Your task to perform on an android device: Clear all items from cart on costco. Add usb-c to usb-b to the cart on costco, then select checkout. Image 0: 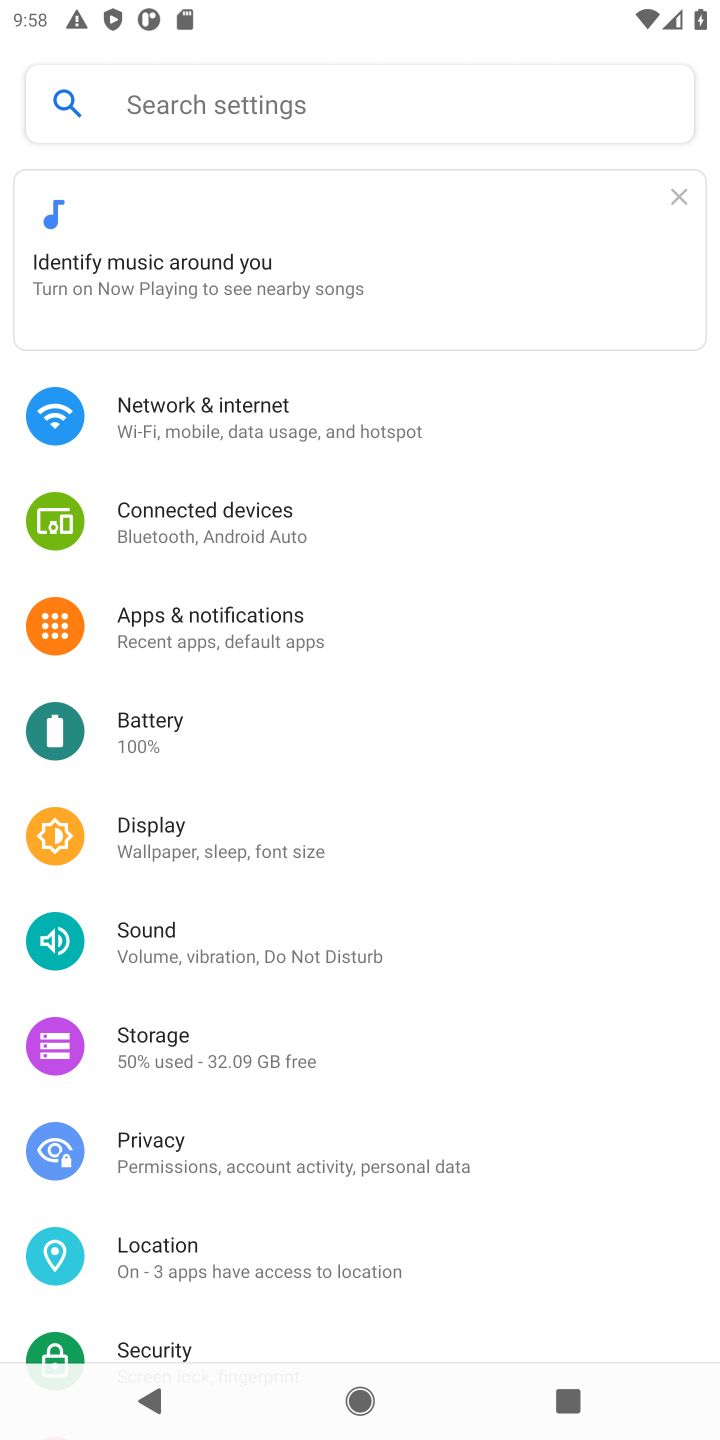
Step 0: press home button
Your task to perform on an android device: Clear all items from cart on costco. Add usb-c to usb-b to the cart on costco, then select checkout. Image 1: 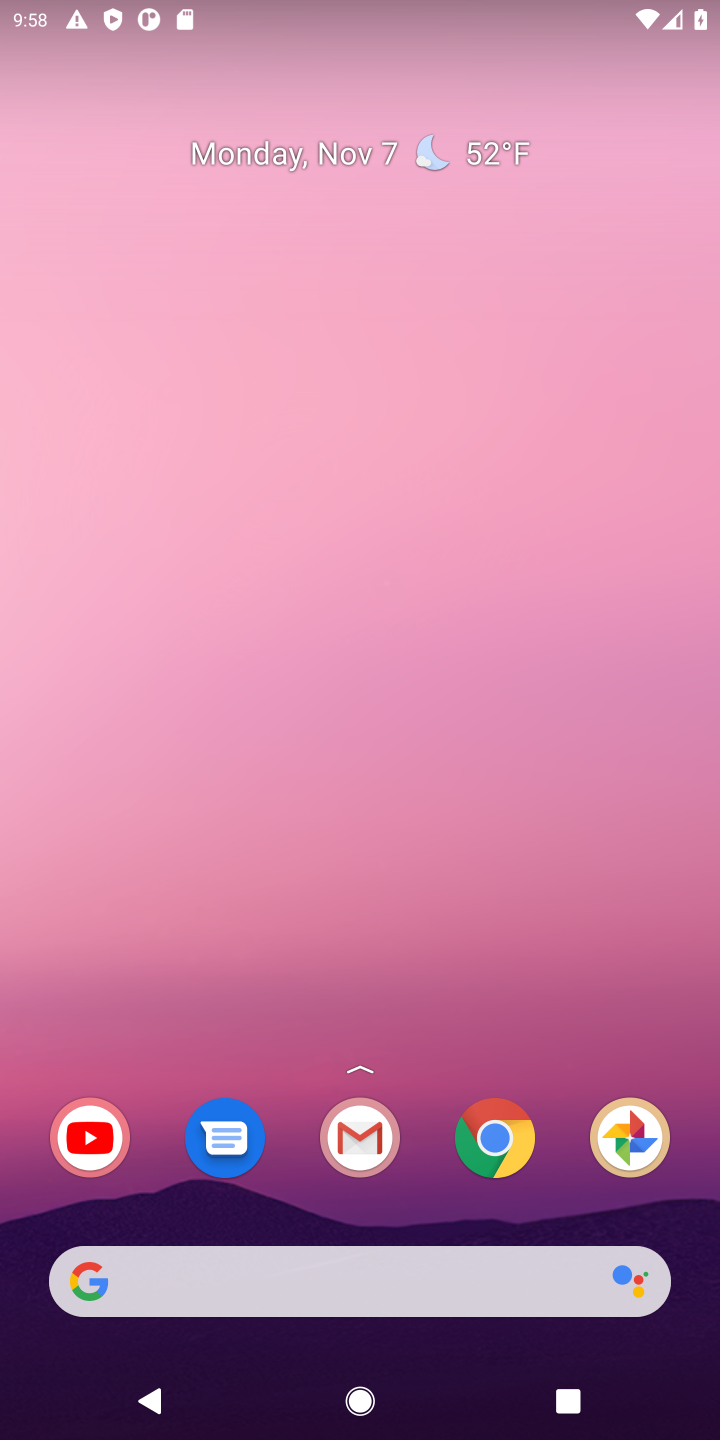
Step 1: click (492, 1129)
Your task to perform on an android device: Clear all items from cart on costco. Add usb-c to usb-b to the cart on costco, then select checkout. Image 2: 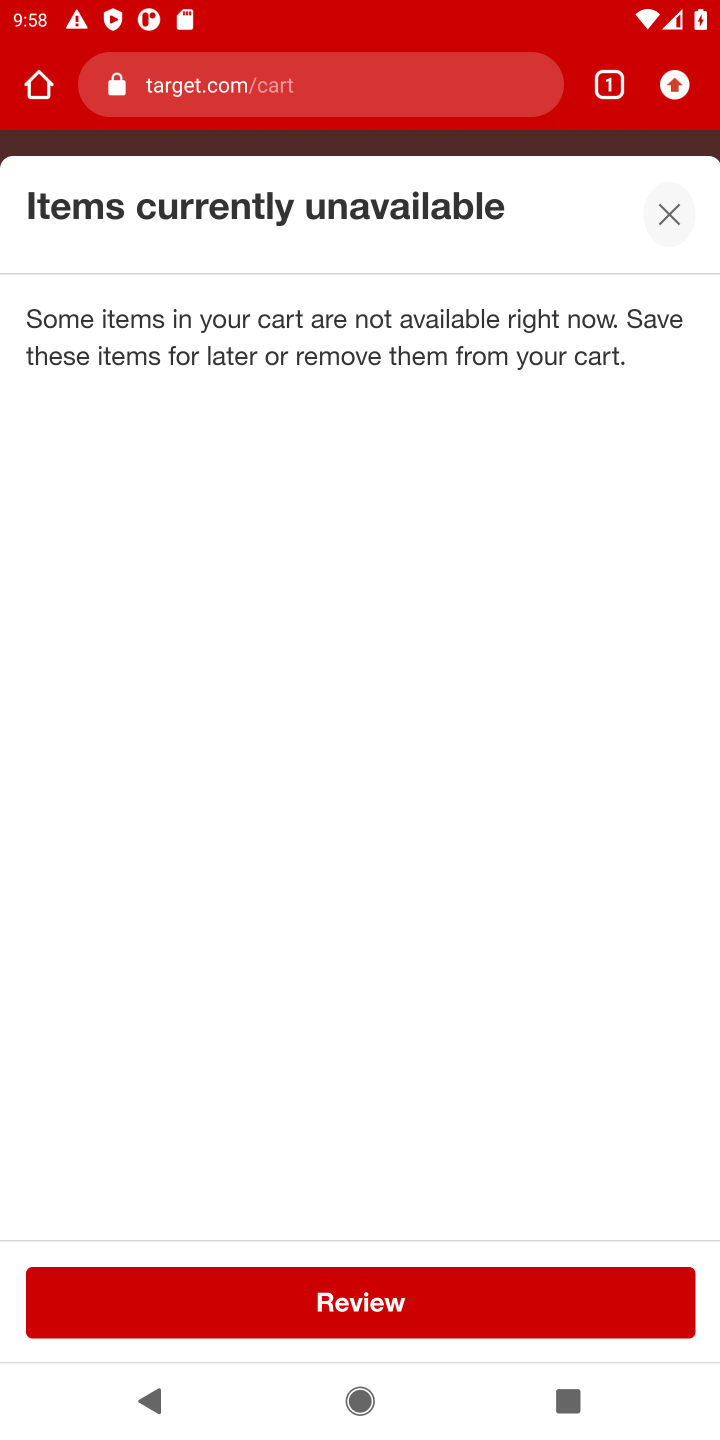
Step 2: click (233, 79)
Your task to perform on an android device: Clear all items from cart on costco. Add usb-c to usb-b to the cart on costco, then select checkout. Image 3: 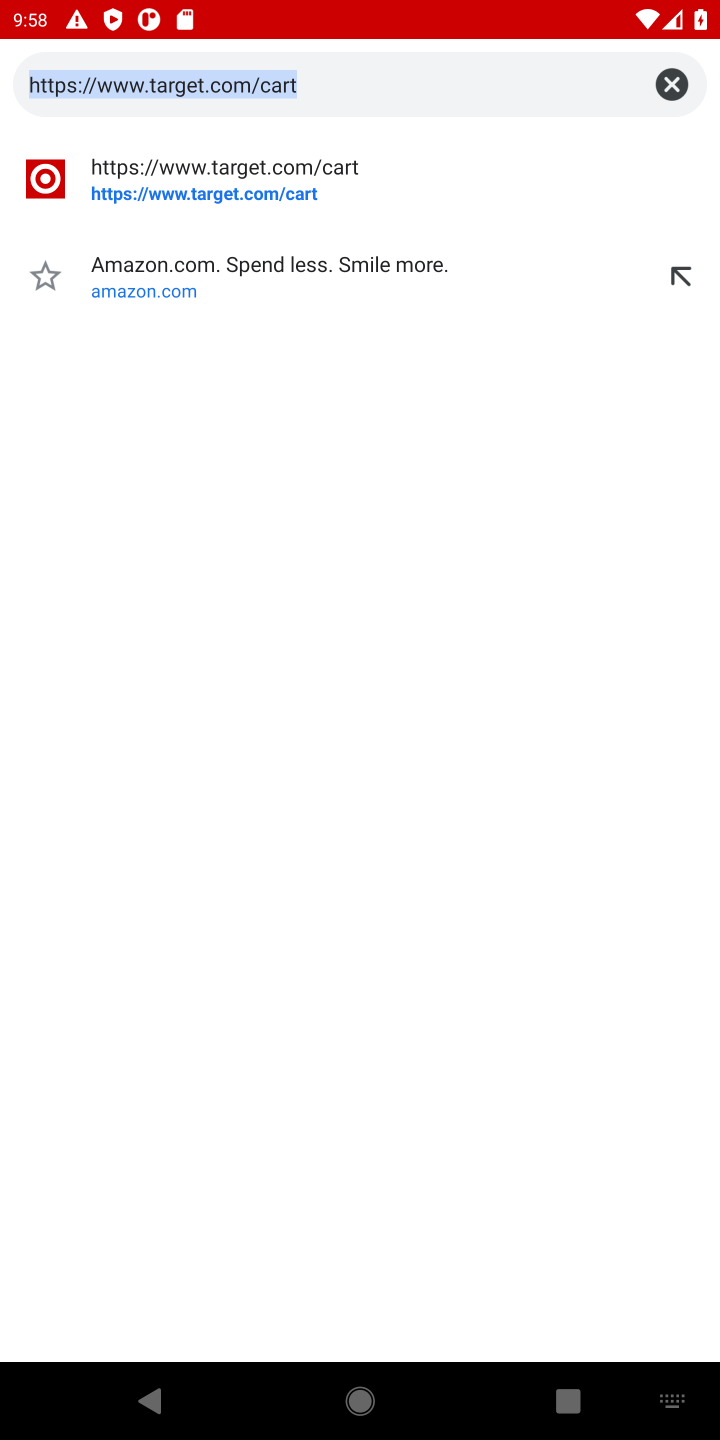
Step 3: click (673, 78)
Your task to perform on an android device: Clear all items from cart on costco. Add usb-c to usb-b to the cart on costco, then select checkout. Image 4: 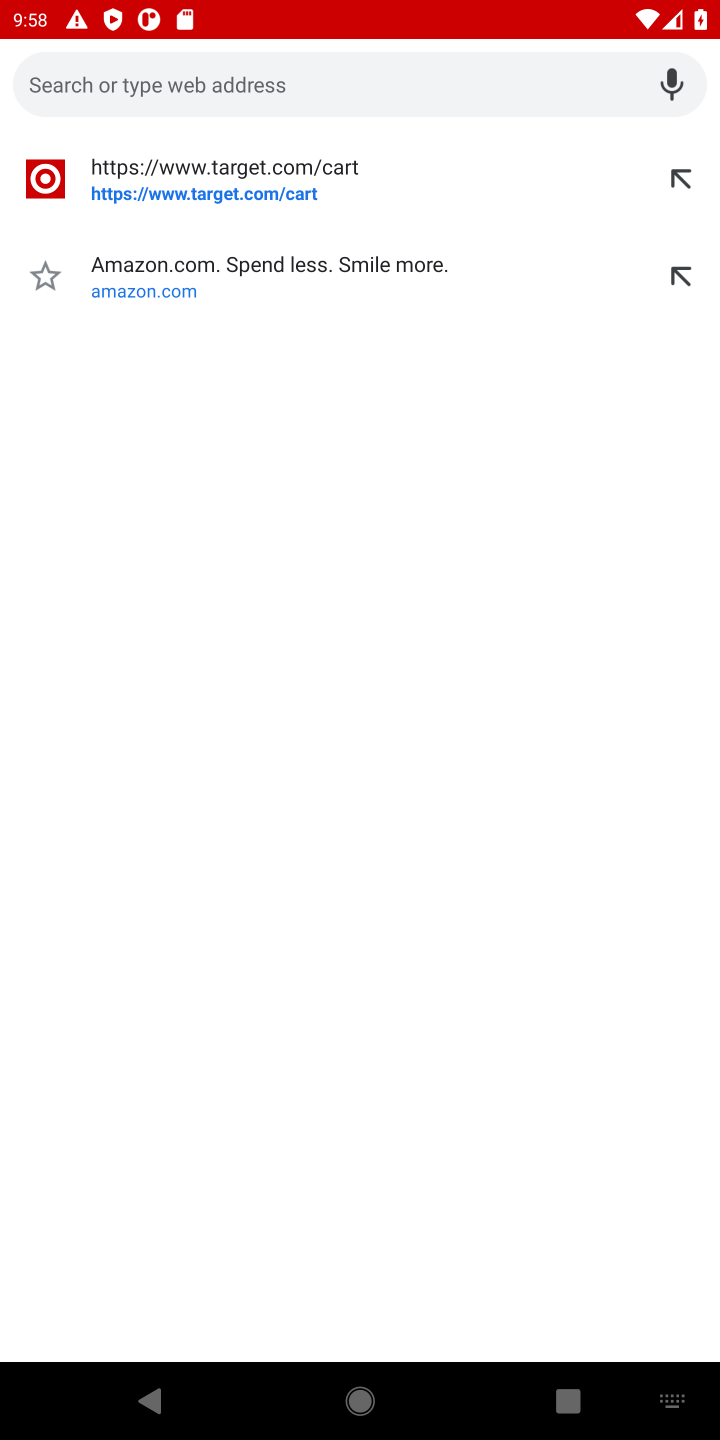
Step 4: type "costco"
Your task to perform on an android device: Clear all items from cart on costco. Add usb-c to usb-b to the cart on costco, then select checkout. Image 5: 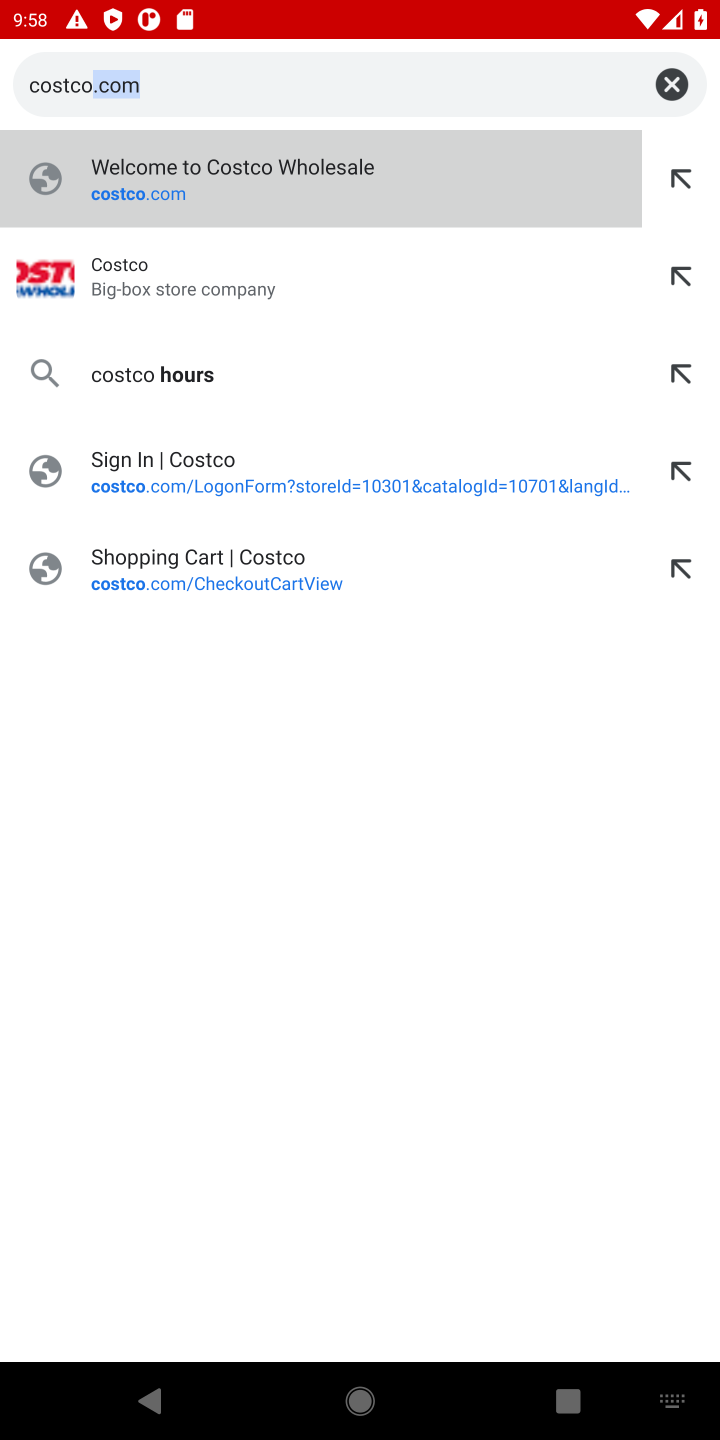
Step 5: type ""
Your task to perform on an android device: Clear all items from cart on costco. Add usb-c to usb-b to the cart on costco, then select checkout. Image 6: 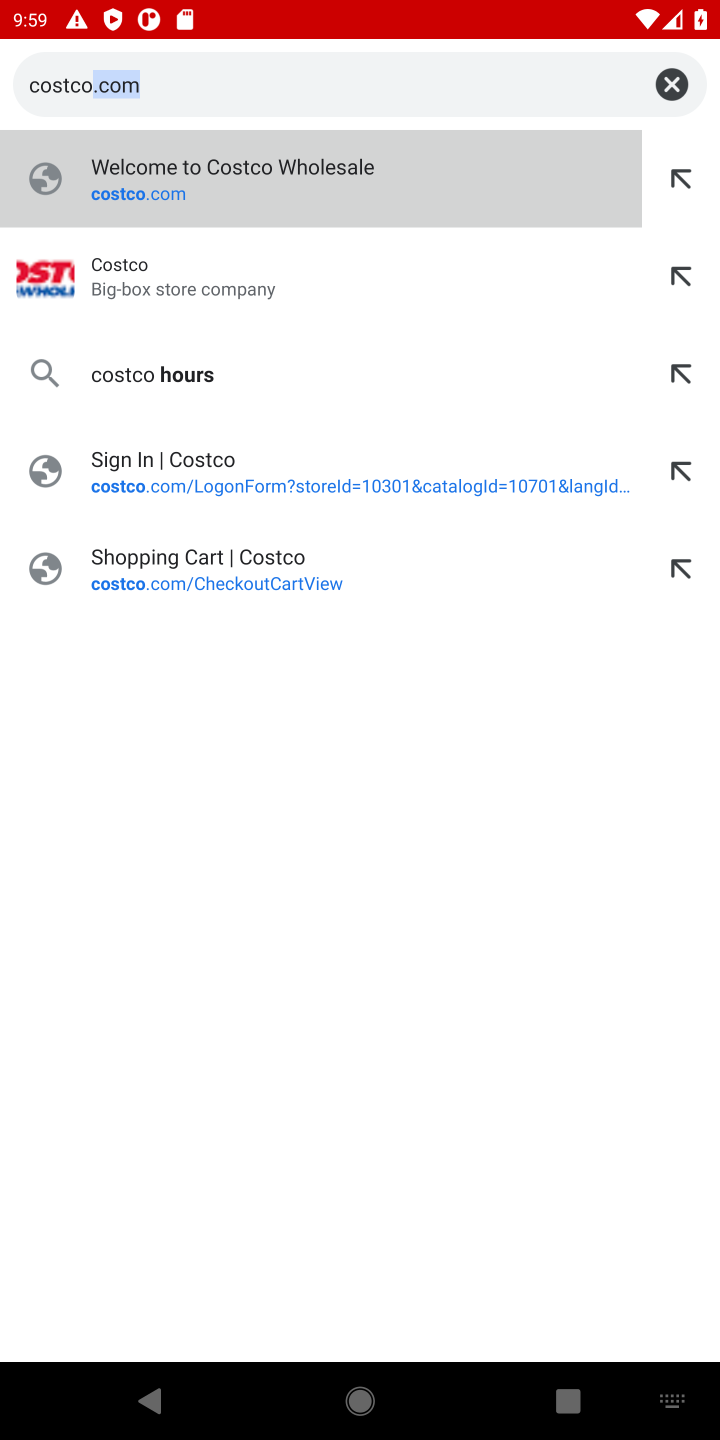
Step 6: click (114, 262)
Your task to perform on an android device: Clear all items from cart on costco. Add usb-c to usb-b to the cart on costco, then select checkout. Image 7: 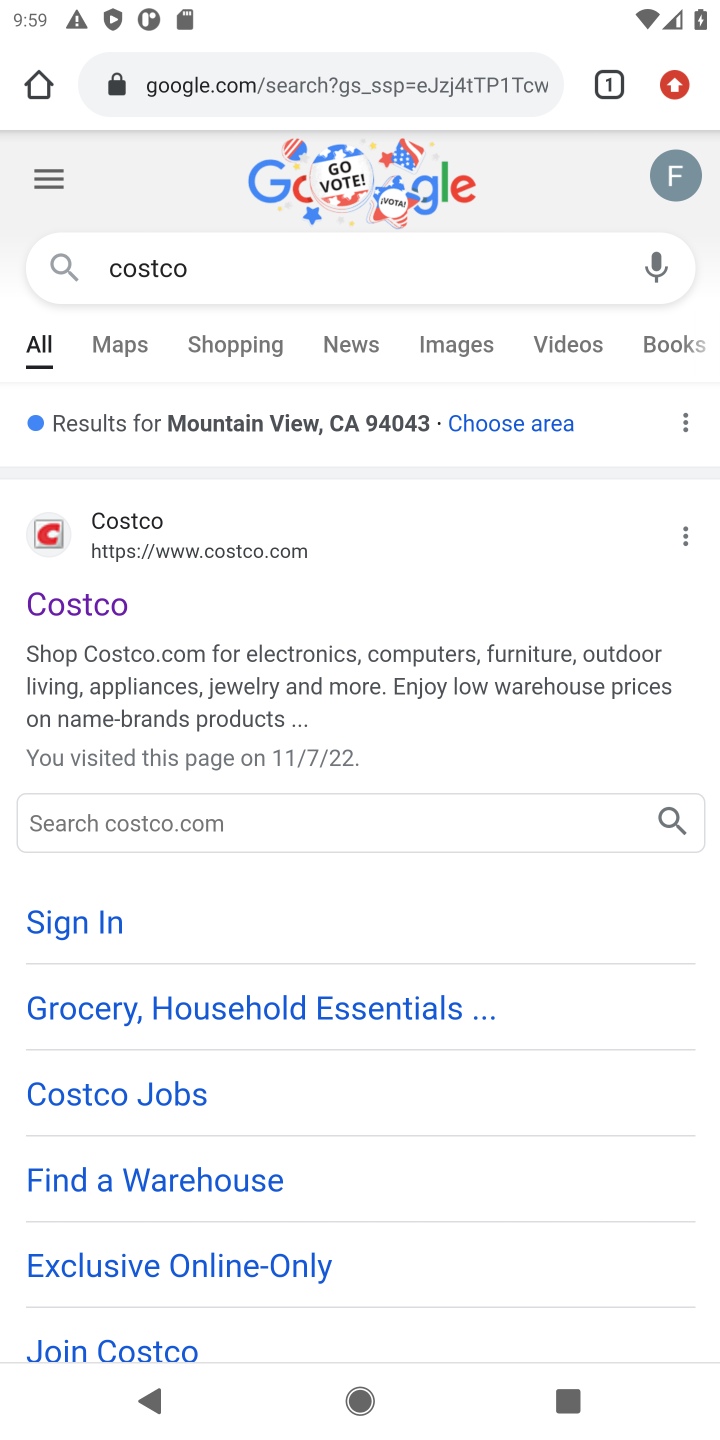
Step 7: click (95, 595)
Your task to perform on an android device: Clear all items from cart on costco. Add usb-c to usb-b to the cart on costco, then select checkout. Image 8: 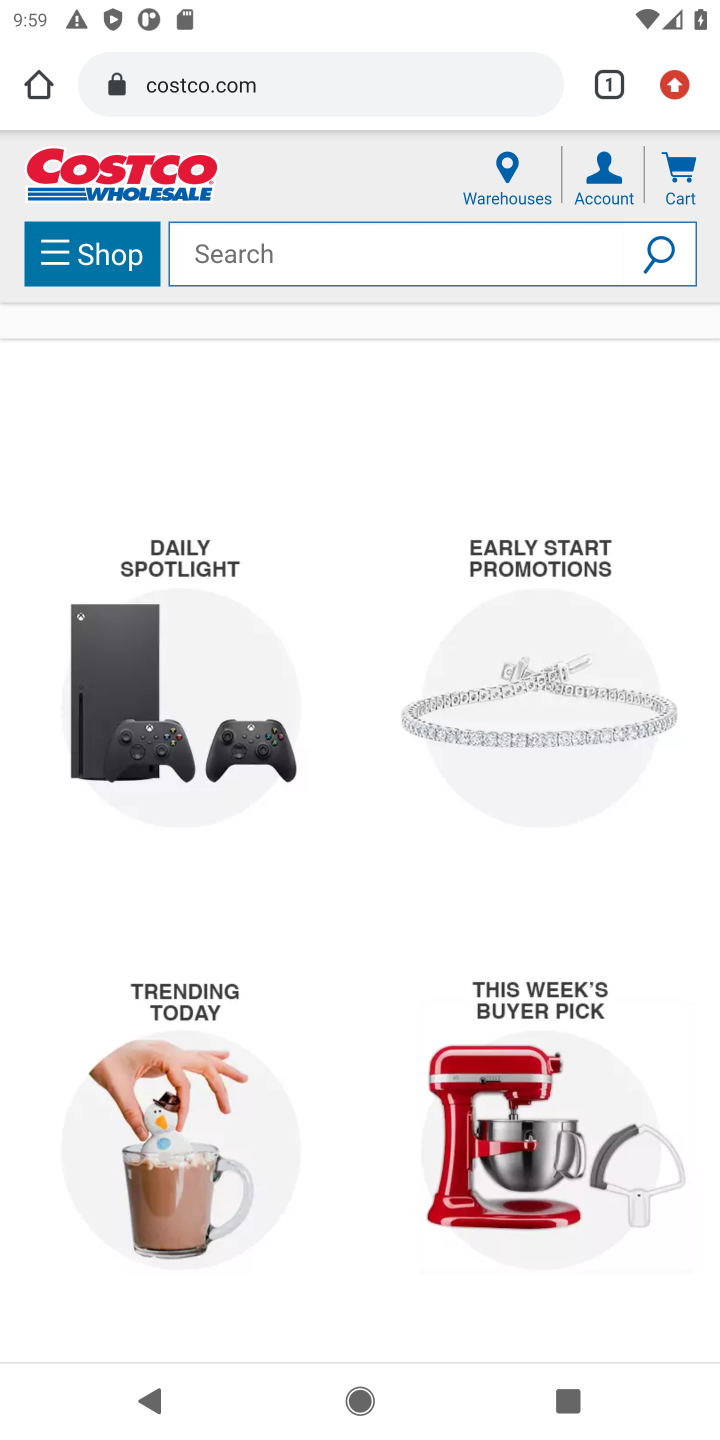
Step 8: click (259, 256)
Your task to perform on an android device: Clear all items from cart on costco. Add usb-c to usb-b to the cart on costco, then select checkout. Image 9: 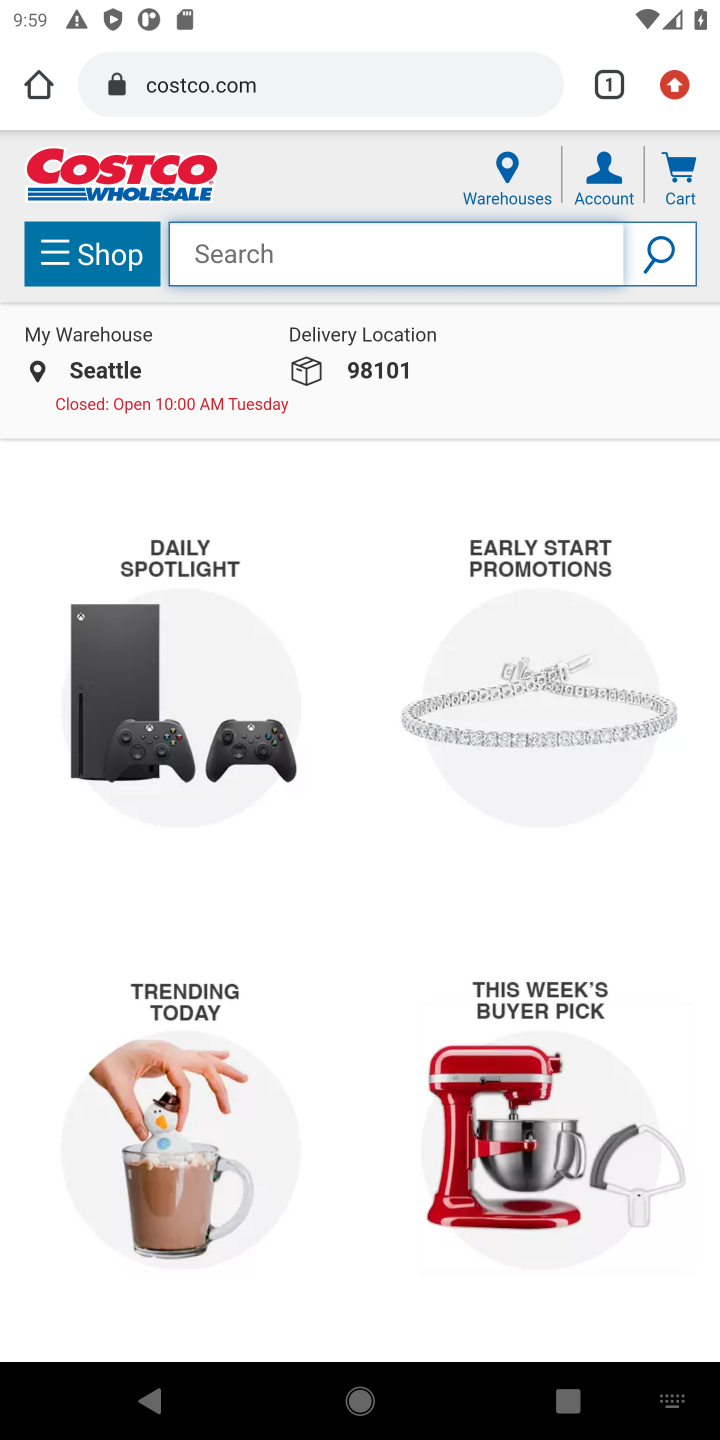
Step 9: type "usb c to usb b "
Your task to perform on an android device: Clear all items from cart on costco. Add usb-c to usb-b to the cart on costco, then select checkout. Image 10: 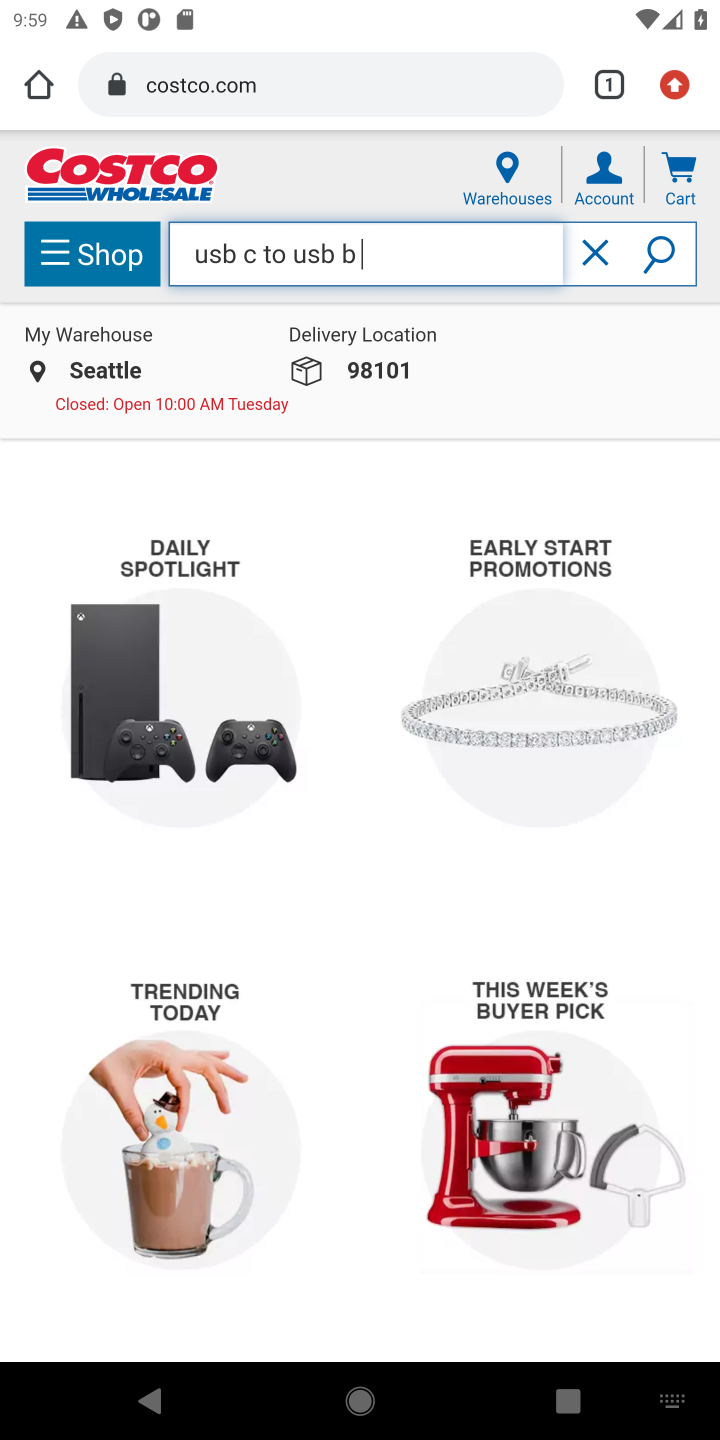
Step 10: type ""
Your task to perform on an android device: Clear all items from cart on costco. Add usb-c to usb-b to the cart on costco, then select checkout. Image 11: 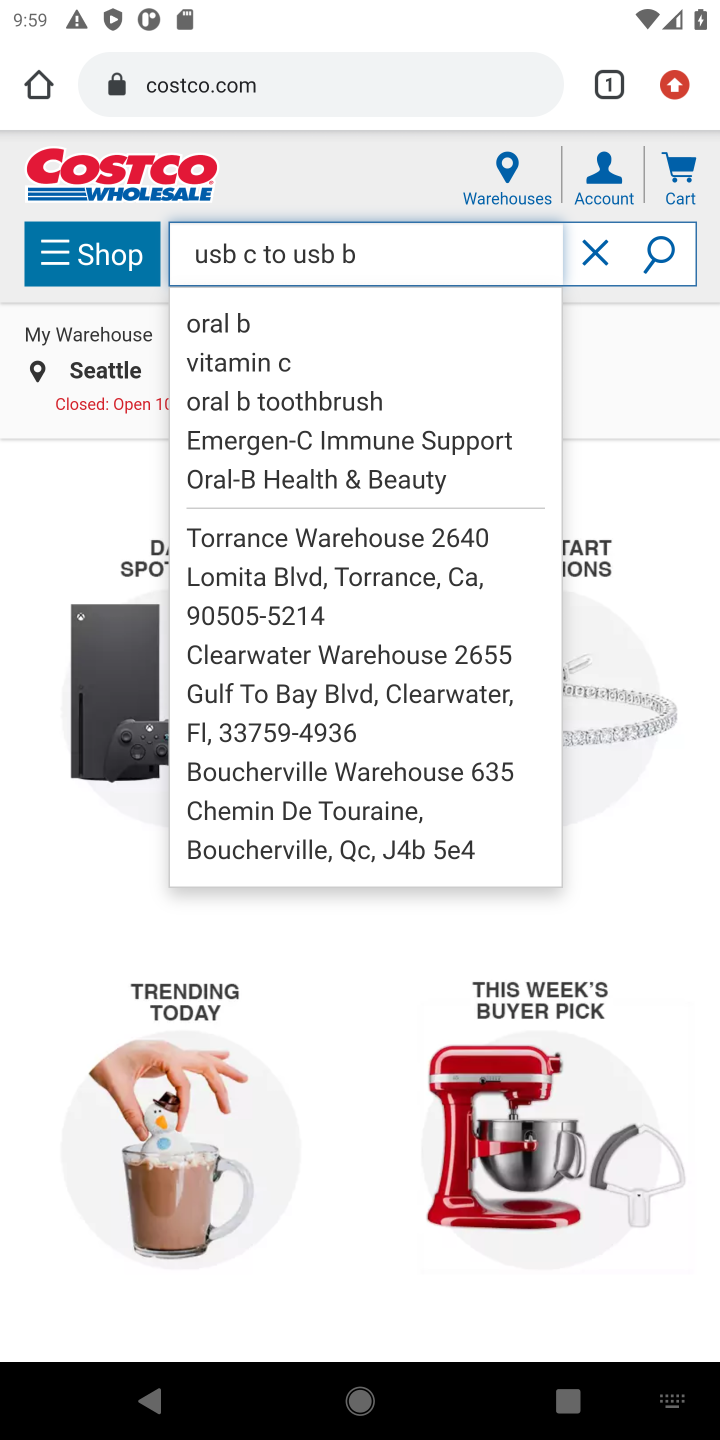
Step 11: click (245, 359)
Your task to perform on an android device: Clear all items from cart on costco. Add usb-c to usb-b to the cart on costco, then select checkout. Image 12: 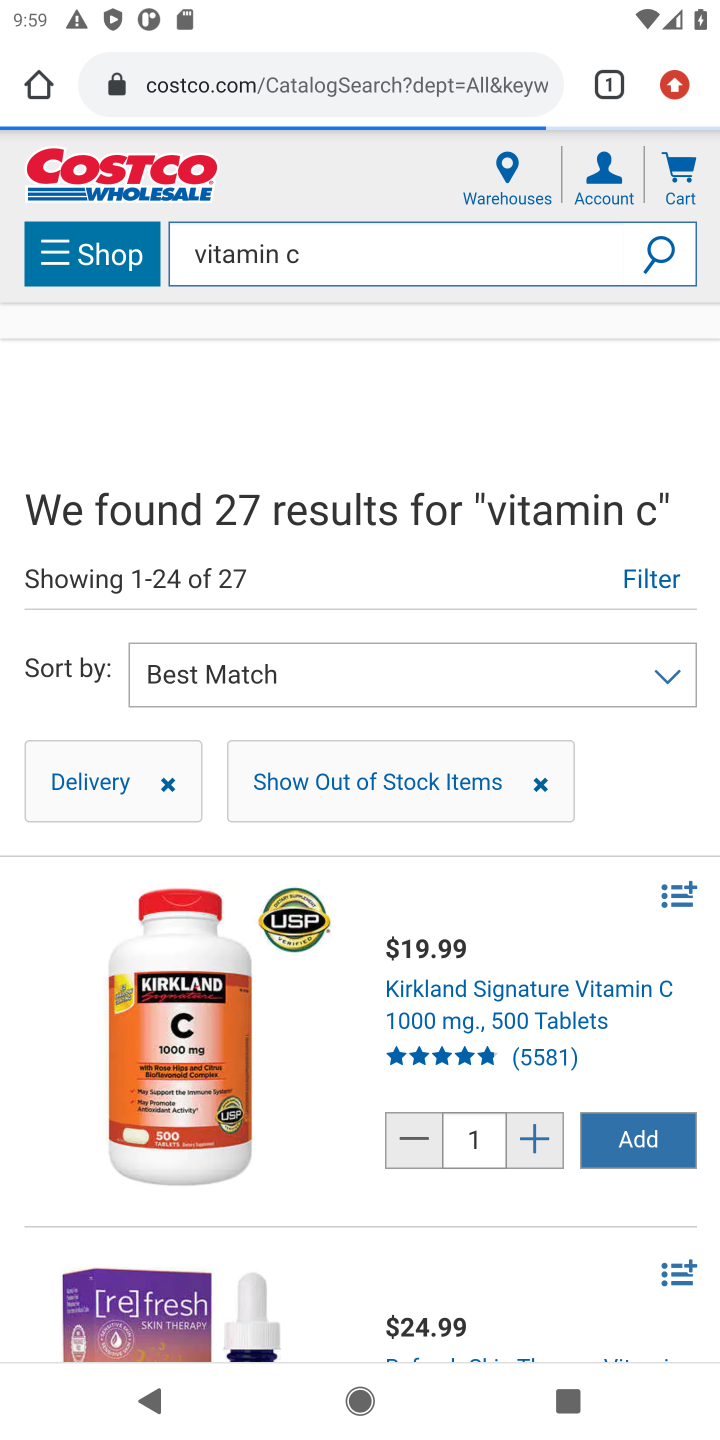
Step 12: drag from (359, 982) to (413, 482)
Your task to perform on an android device: Clear all items from cart on costco. Add usb-c to usb-b to the cart on costco, then select checkout. Image 13: 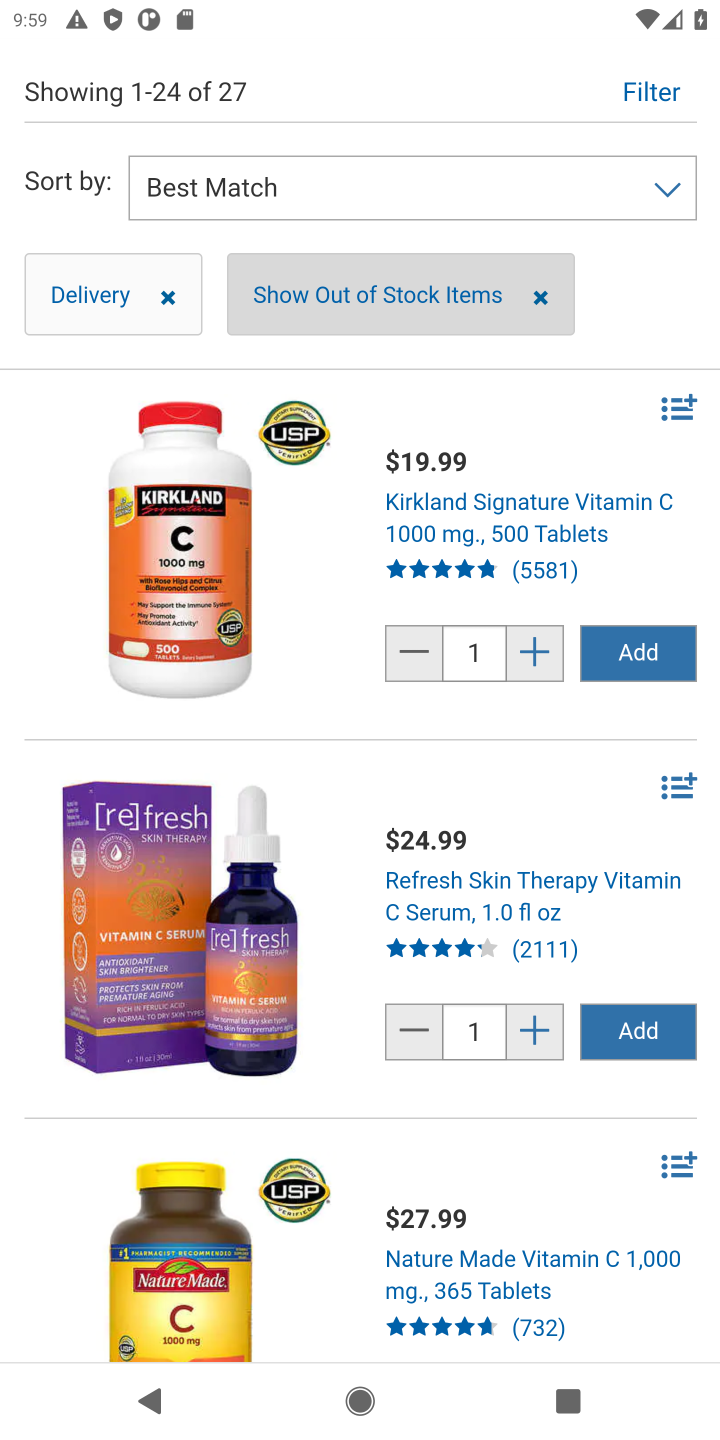
Step 13: drag from (356, 423) to (302, 1428)
Your task to perform on an android device: Clear all items from cart on costco. Add usb-c to usb-b to the cart on costco, then select checkout. Image 14: 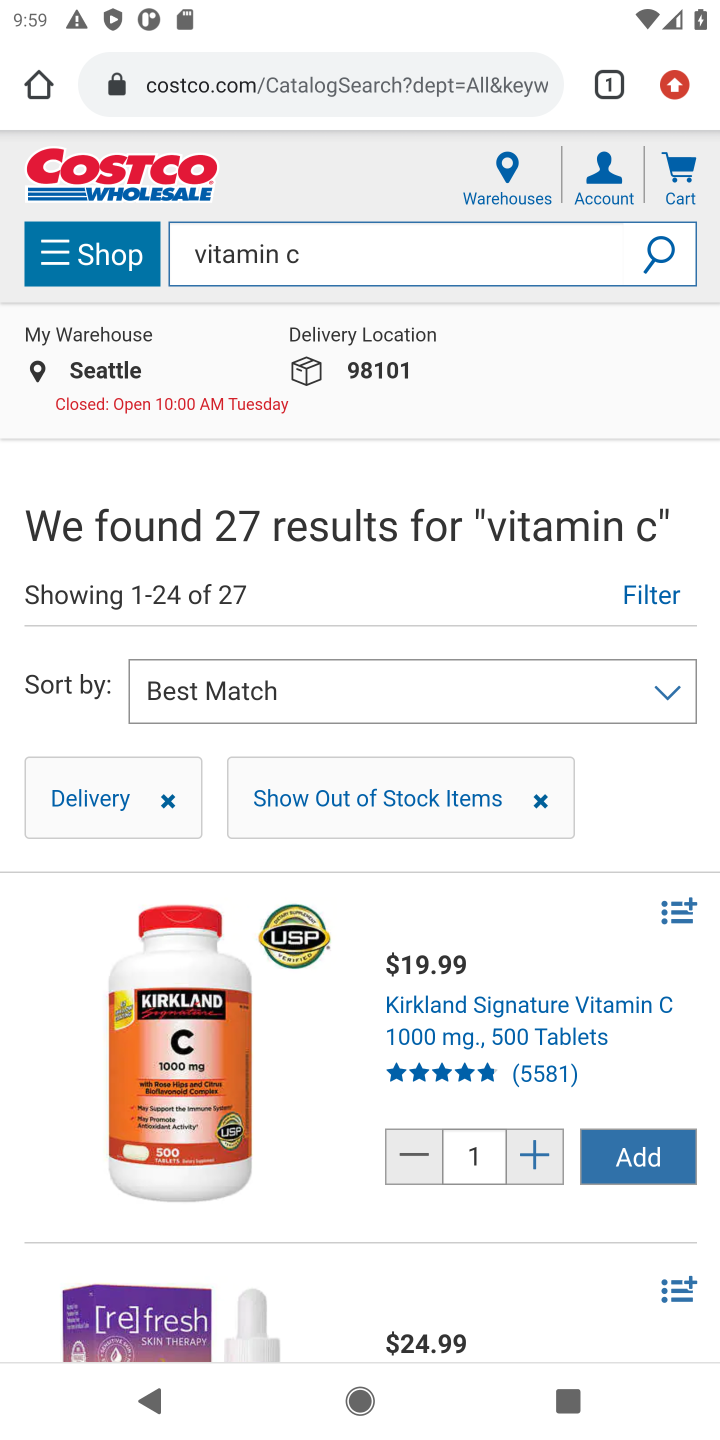
Step 14: click (232, 242)
Your task to perform on an android device: Clear all items from cart on costco. Add usb-c to usb-b to the cart on costco, then select checkout. Image 15: 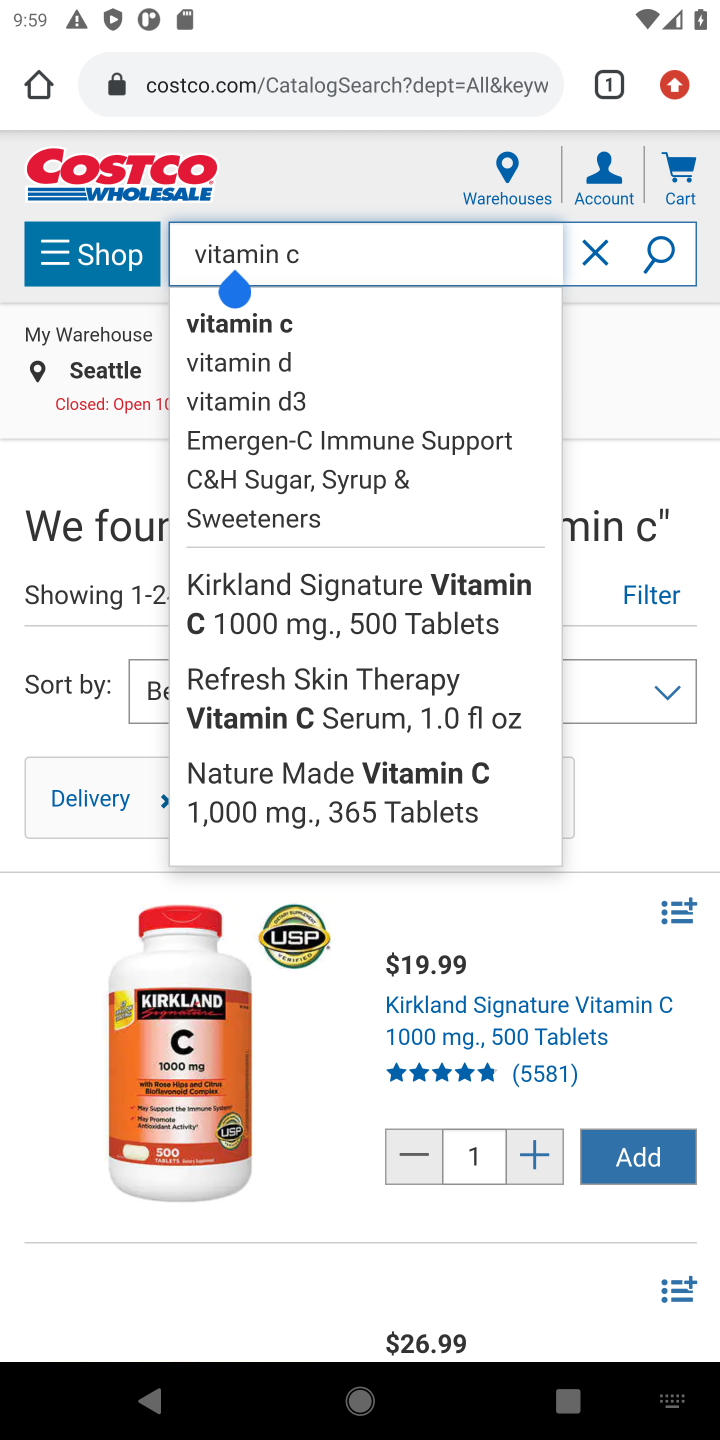
Step 15: click (591, 253)
Your task to perform on an android device: Clear all items from cart on costco. Add usb-c to usb-b to the cart on costco, then select checkout. Image 16: 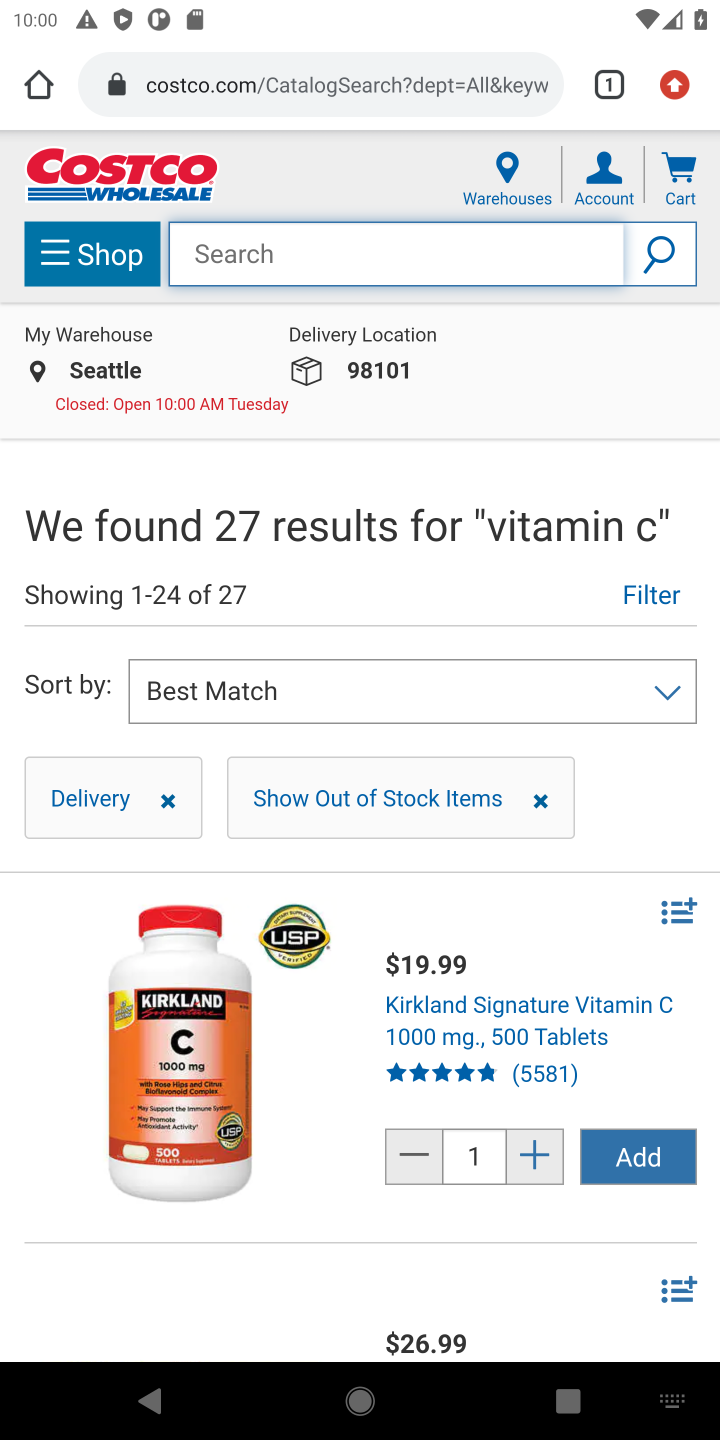
Step 16: type "usb c usb b "
Your task to perform on an android device: Clear all items from cart on costco. Add usb-c to usb-b to the cart on costco, then select checkout. Image 17: 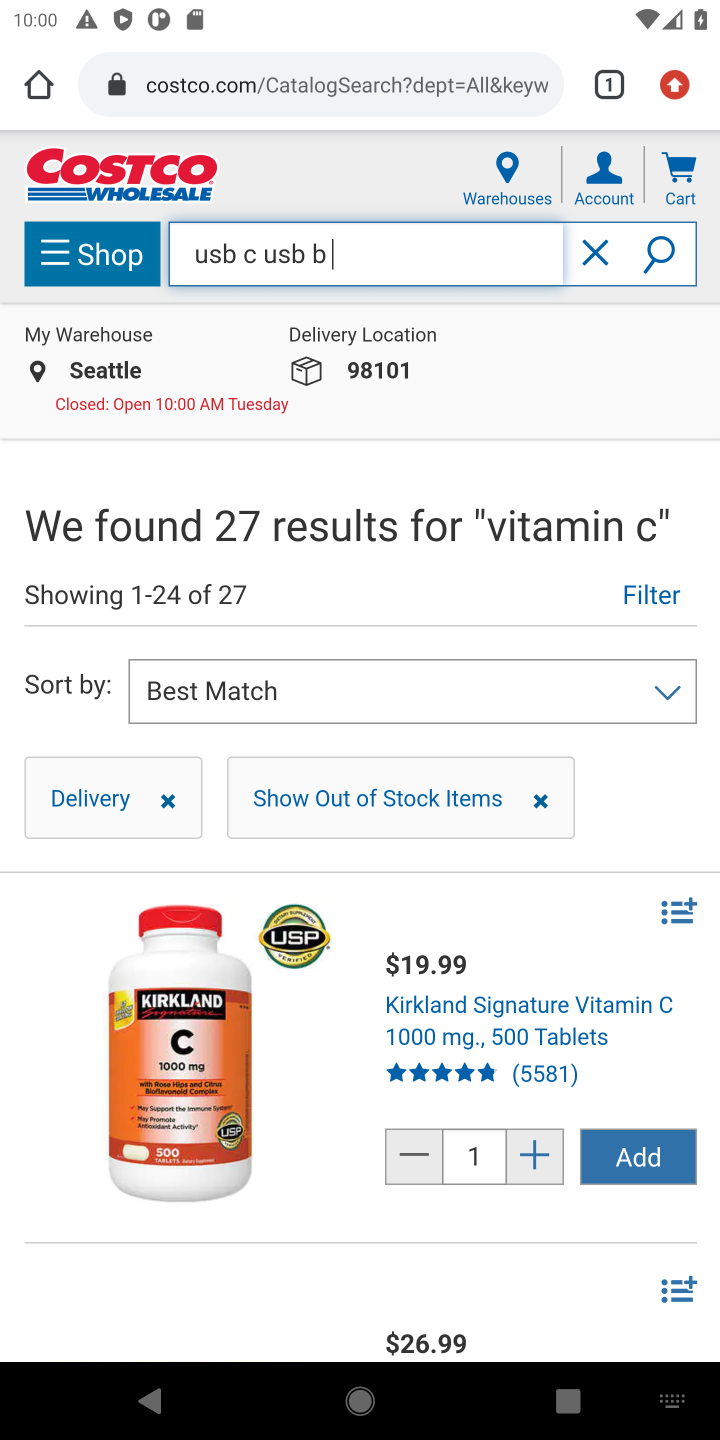
Step 17: type ""
Your task to perform on an android device: Clear all items from cart on costco. Add usb-c to usb-b to the cart on costco, then select checkout. Image 18: 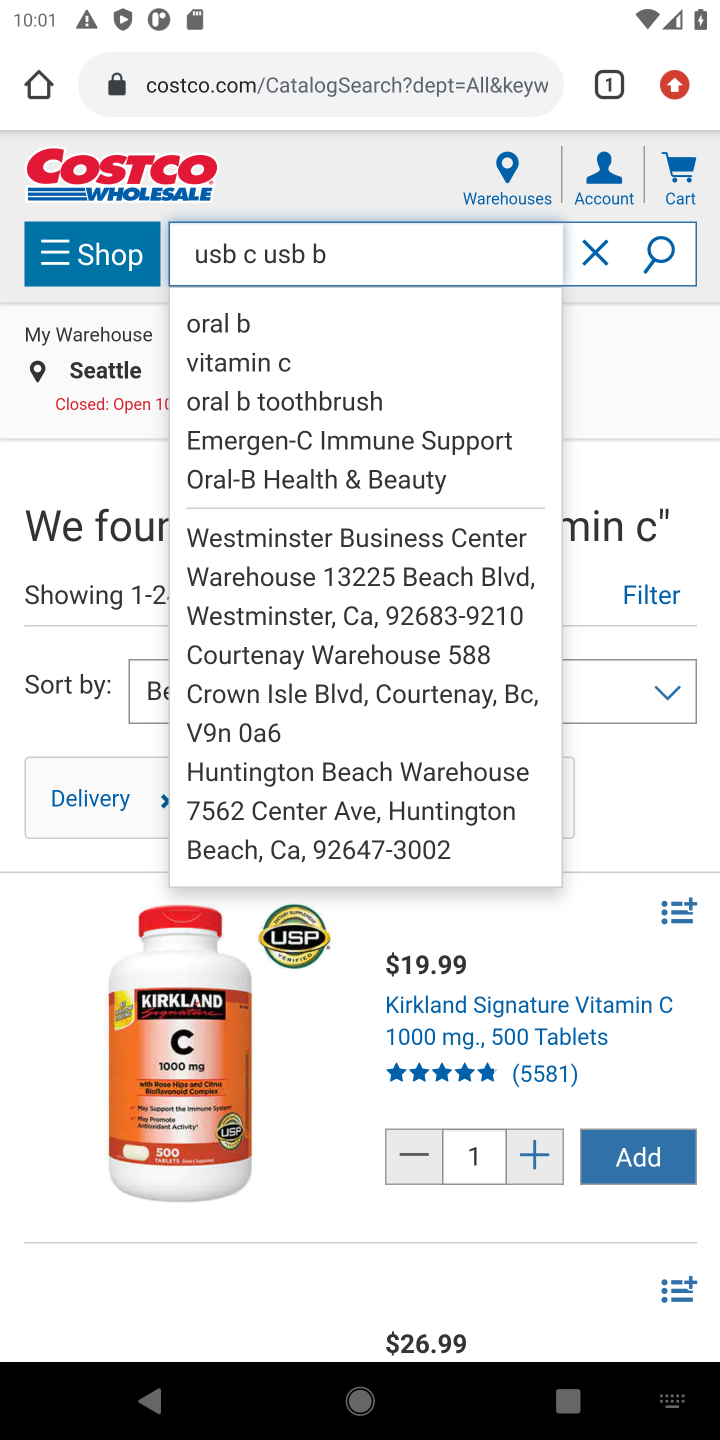
Step 18: click (423, 250)
Your task to perform on an android device: Clear all items from cart on costco. Add usb-c to usb-b to the cart on costco, then select checkout. Image 19: 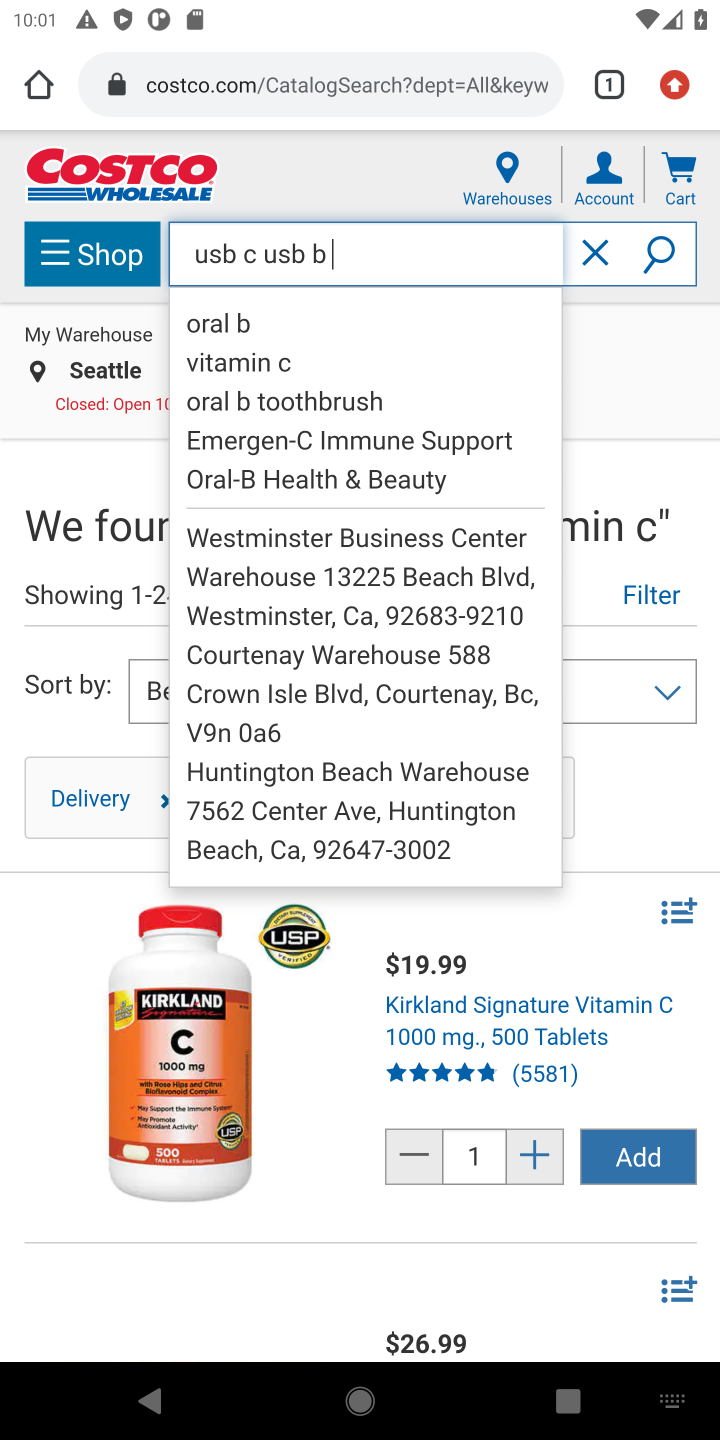
Step 19: click (421, 243)
Your task to perform on an android device: Clear all items from cart on costco. Add usb-c to usb-b to the cart on costco, then select checkout. Image 20: 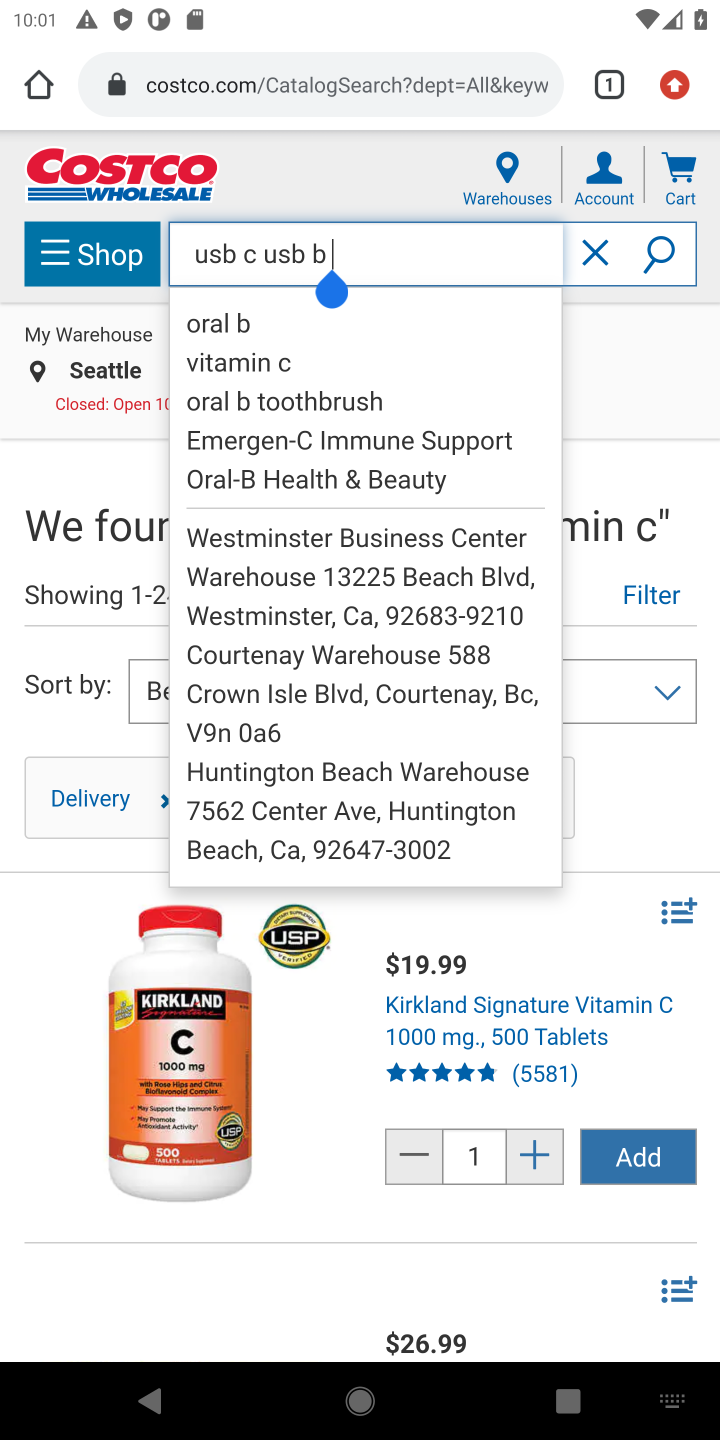
Step 20: click (670, 267)
Your task to perform on an android device: Clear all items from cart on costco. Add usb-c to usb-b to the cart on costco, then select checkout. Image 21: 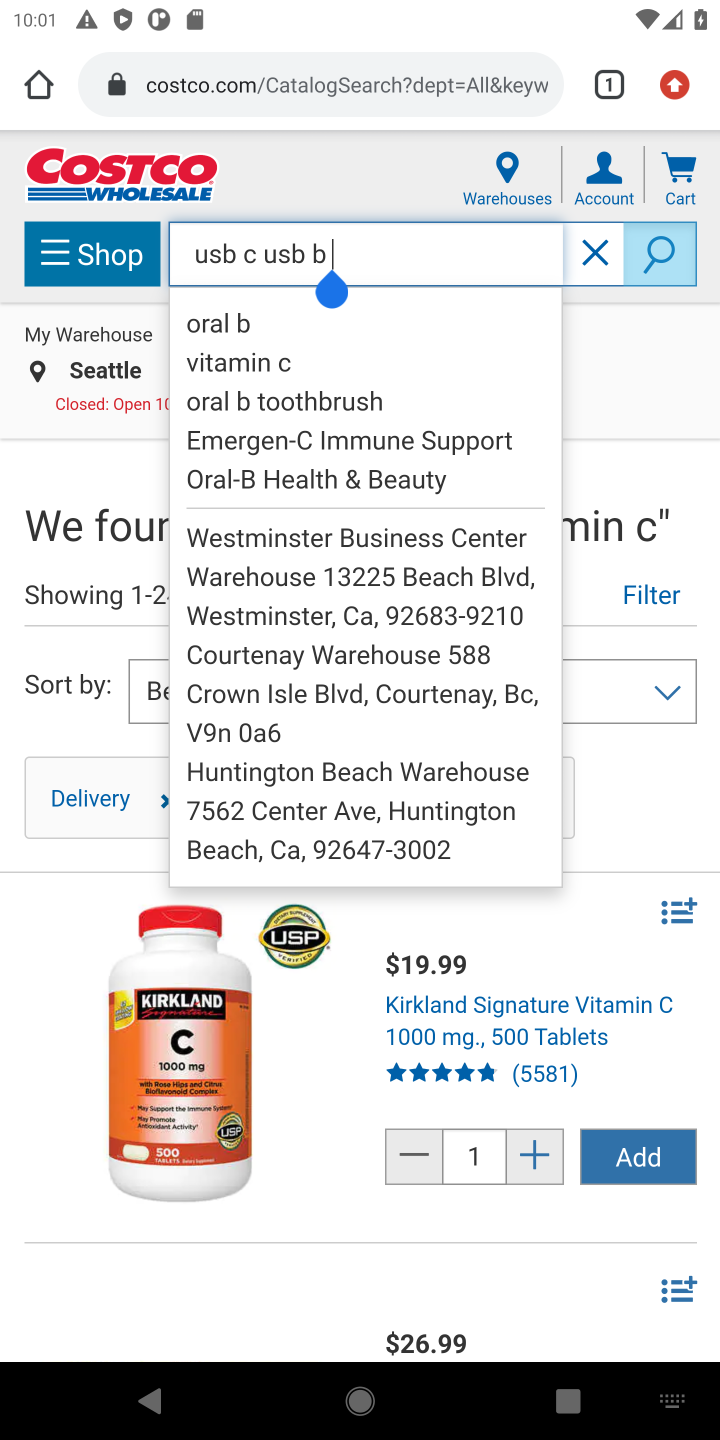
Step 21: click (672, 249)
Your task to perform on an android device: Clear all items from cart on costco. Add usb-c to usb-b to the cart on costco, then select checkout. Image 22: 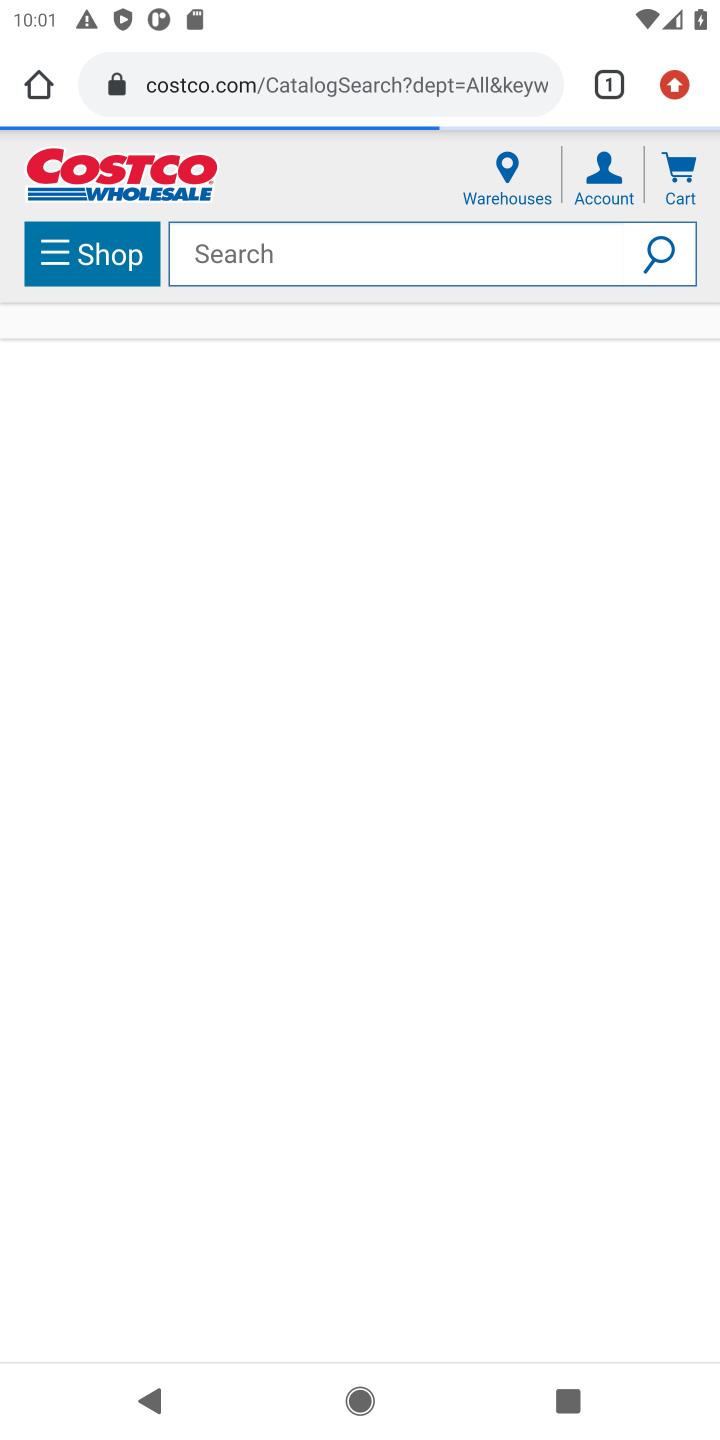
Step 22: click (664, 247)
Your task to perform on an android device: Clear all items from cart on costco. Add usb-c to usb-b to the cart on costco, then select checkout. Image 23: 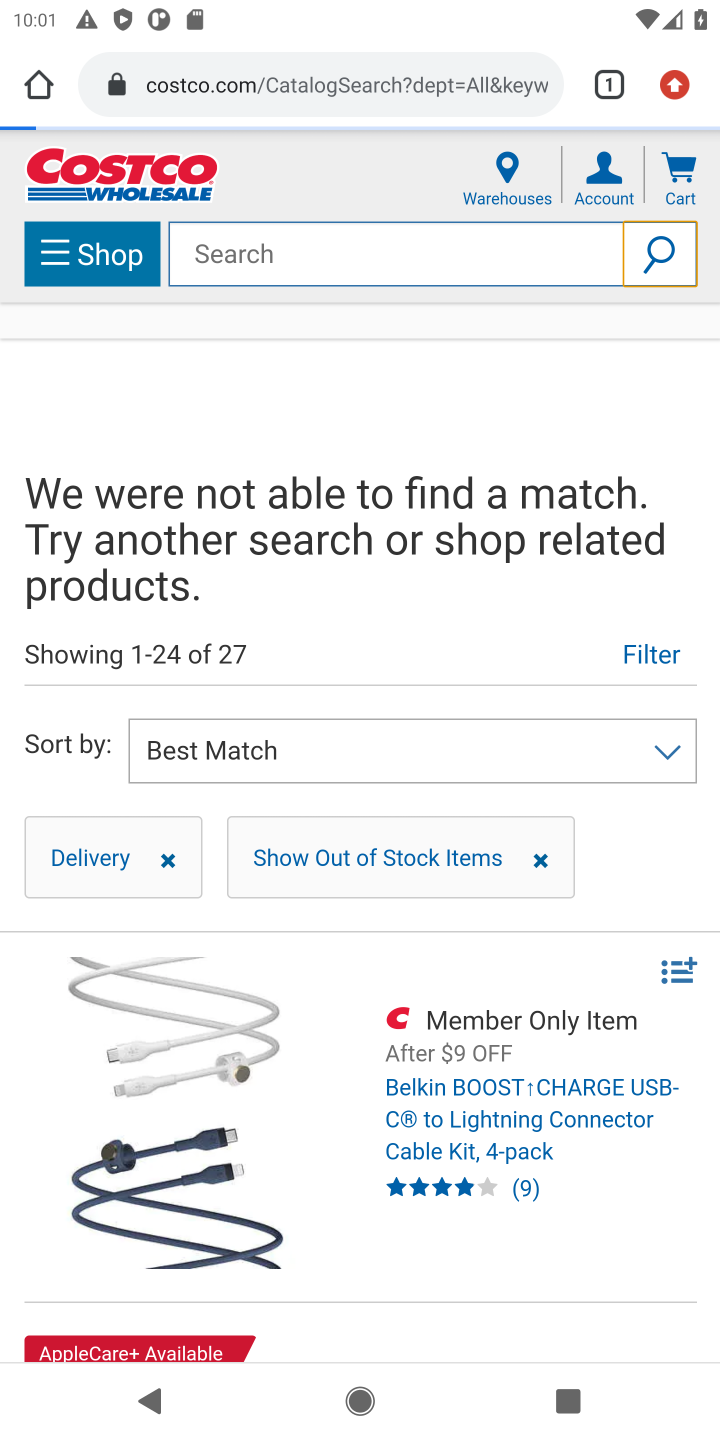
Step 23: task complete